Your task to perform on an android device: change the clock style Image 0: 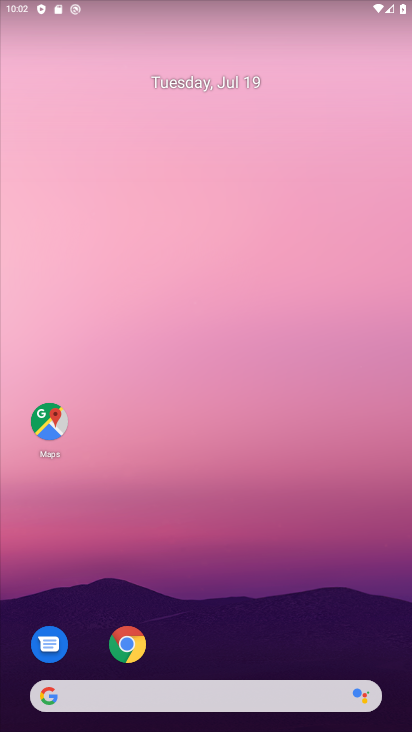
Step 0: drag from (269, 623) to (239, 88)
Your task to perform on an android device: change the clock style Image 1: 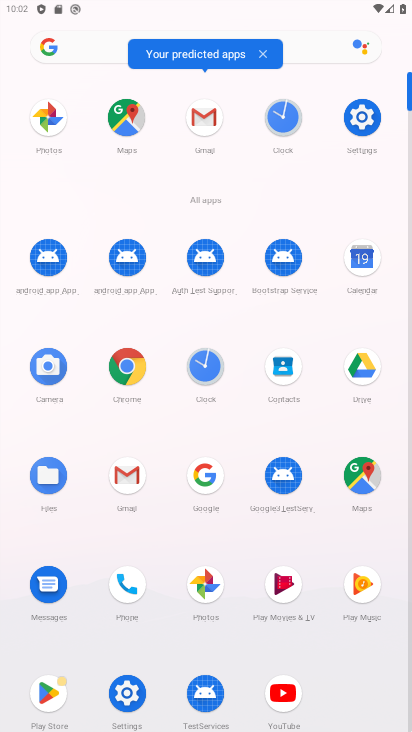
Step 1: click (206, 365)
Your task to perform on an android device: change the clock style Image 2: 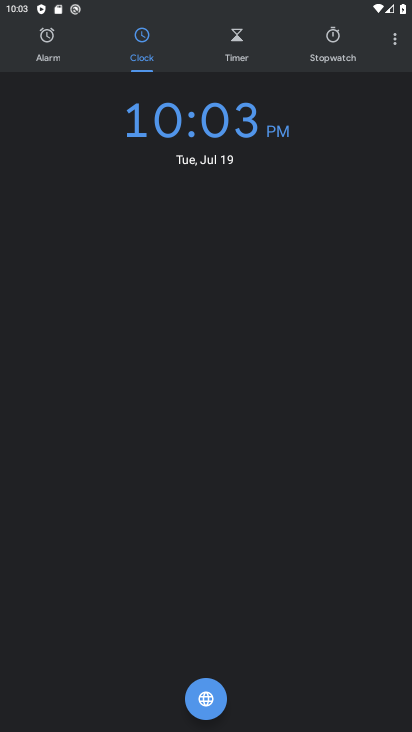
Step 2: click (395, 40)
Your task to perform on an android device: change the clock style Image 3: 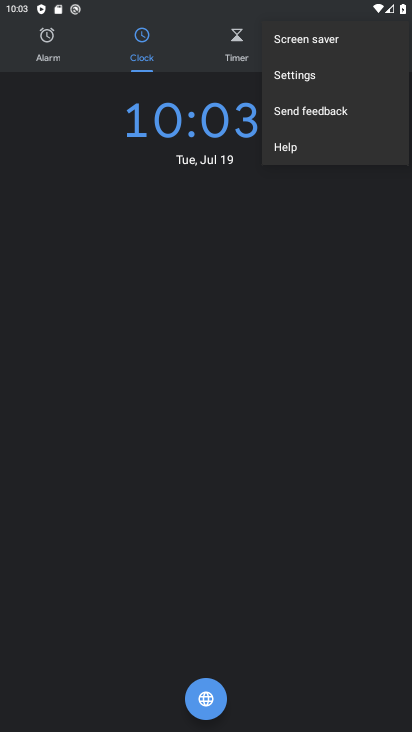
Step 3: click (288, 73)
Your task to perform on an android device: change the clock style Image 4: 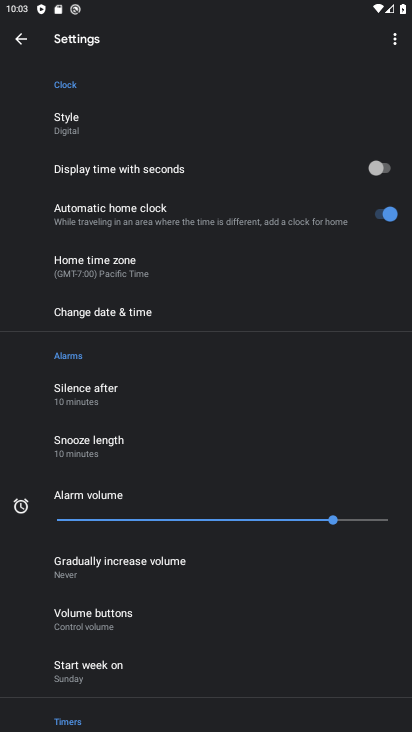
Step 4: click (69, 123)
Your task to perform on an android device: change the clock style Image 5: 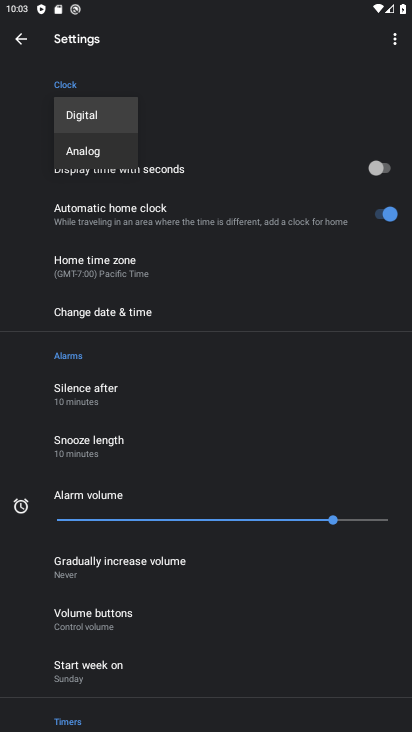
Step 5: click (79, 146)
Your task to perform on an android device: change the clock style Image 6: 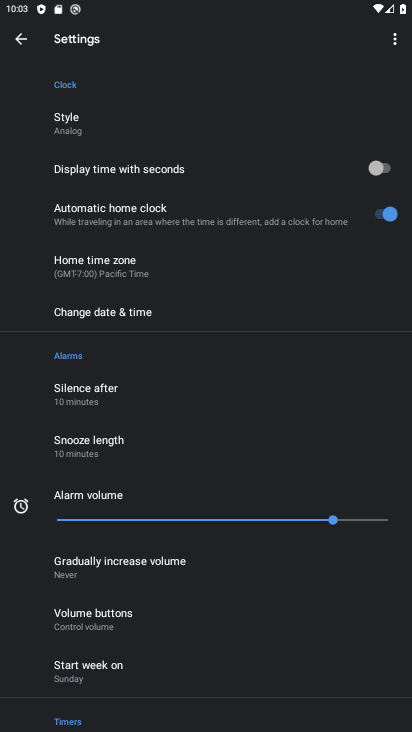
Step 6: task complete